Your task to perform on an android device: turn notification dots off Image 0: 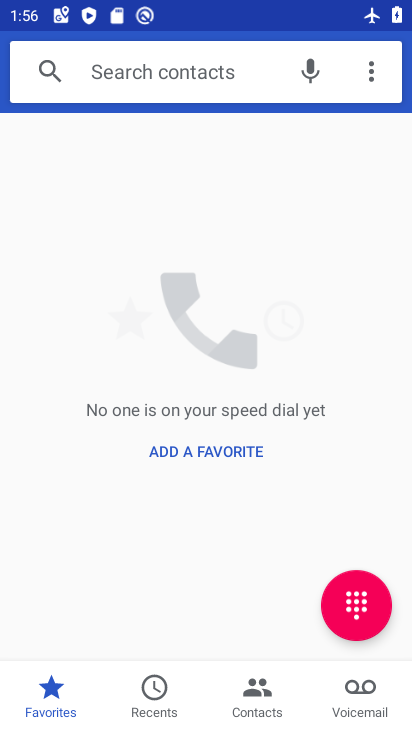
Step 0: press home button
Your task to perform on an android device: turn notification dots off Image 1: 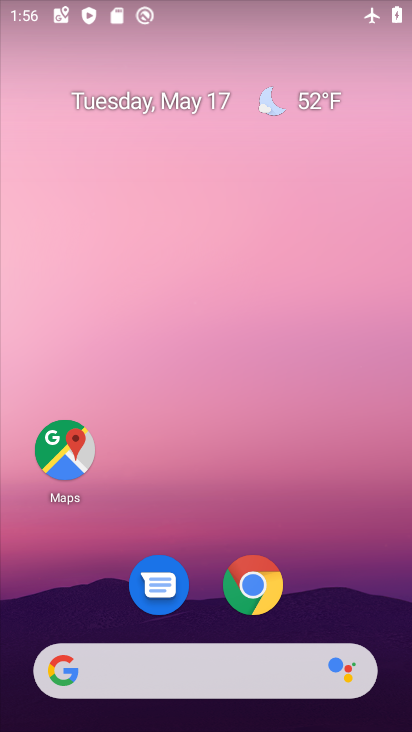
Step 1: drag from (330, 527) to (349, 57)
Your task to perform on an android device: turn notification dots off Image 2: 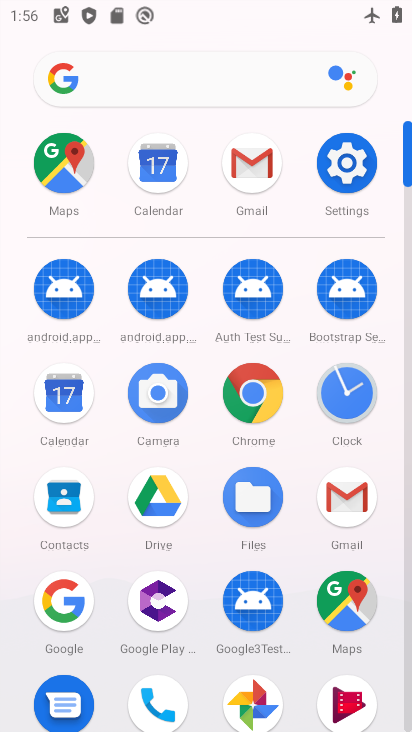
Step 2: click (344, 148)
Your task to perform on an android device: turn notification dots off Image 3: 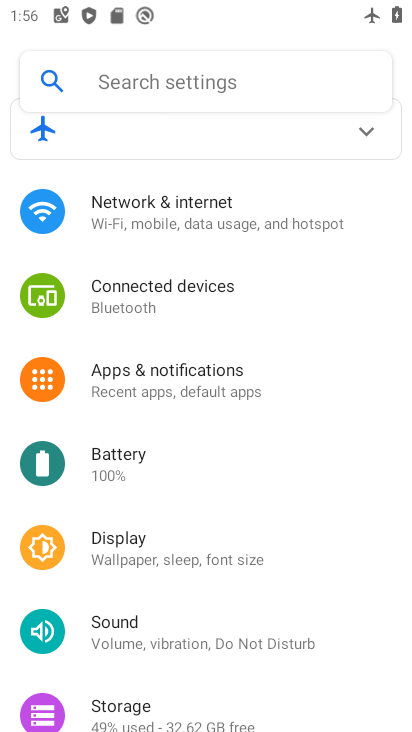
Step 3: click (265, 223)
Your task to perform on an android device: turn notification dots off Image 4: 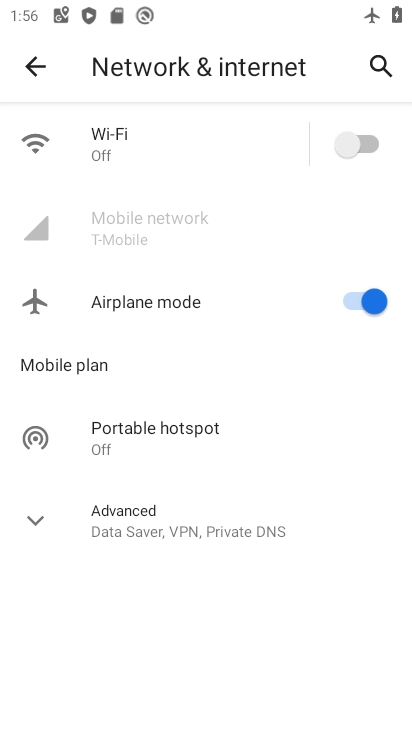
Step 4: click (38, 61)
Your task to perform on an android device: turn notification dots off Image 5: 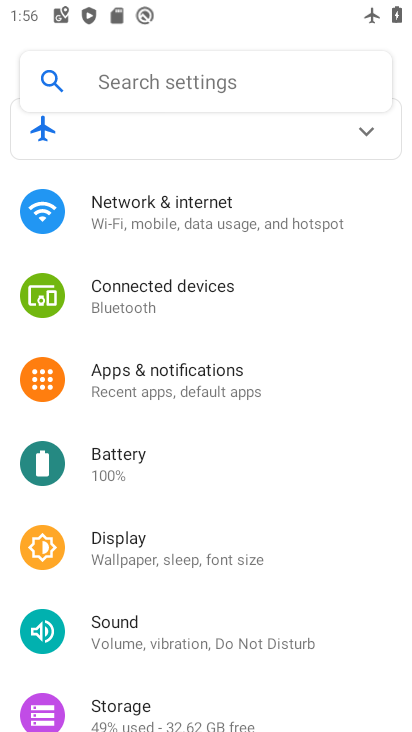
Step 5: click (196, 366)
Your task to perform on an android device: turn notification dots off Image 6: 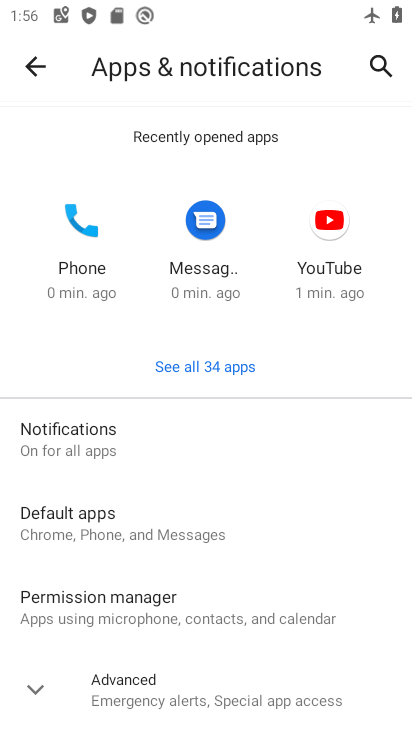
Step 6: click (201, 436)
Your task to perform on an android device: turn notification dots off Image 7: 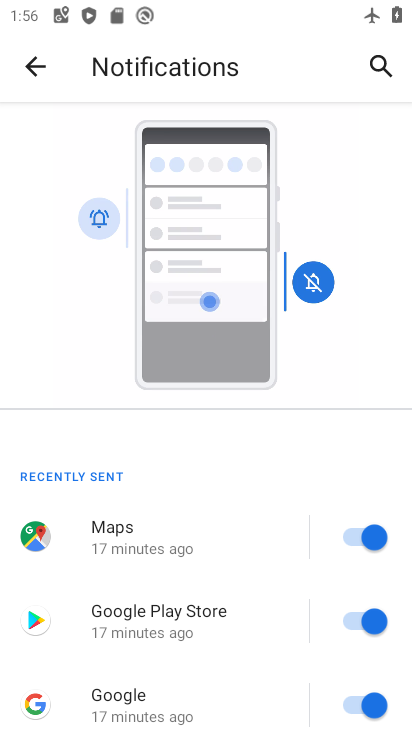
Step 7: drag from (223, 608) to (231, 211)
Your task to perform on an android device: turn notification dots off Image 8: 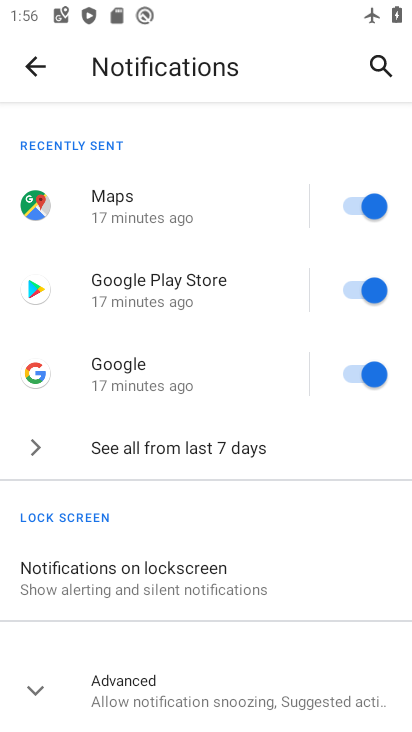
Step 8: click (38, 693)
Your task to perform on an android device: turn notification dots off Image 9: 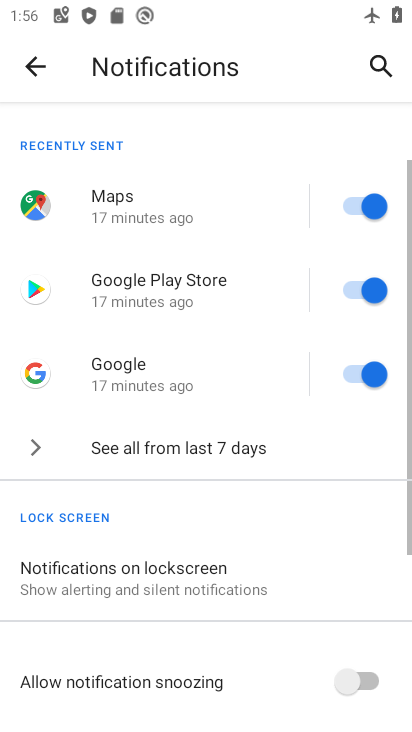
Step 9: drag from (204, 538) to (233, 206)
Your task to perform on an android device: turn notification dots off Image 10: 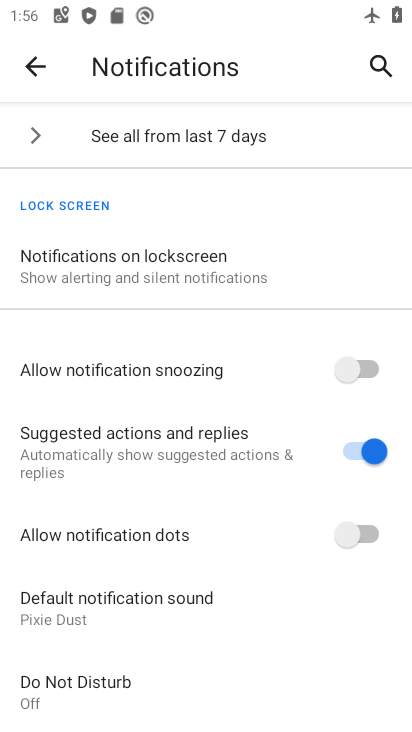
Step 10: click (362, 534)
Your task to perform on an android device: turn notification dots off Image 11: 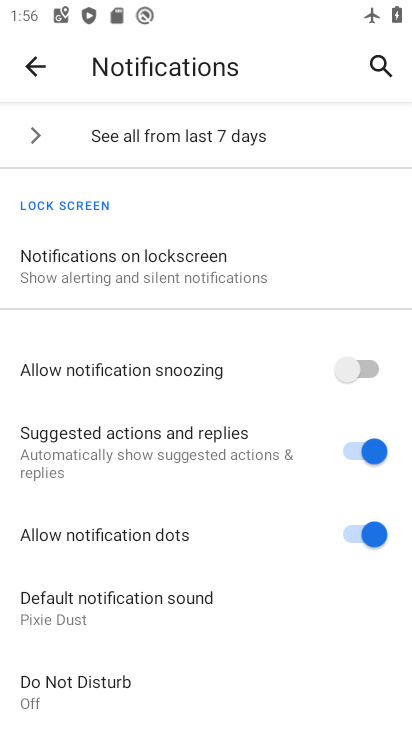
Step 11: click (356, 525)
Your task to perform on an android device: turn notification dots off Image 12: 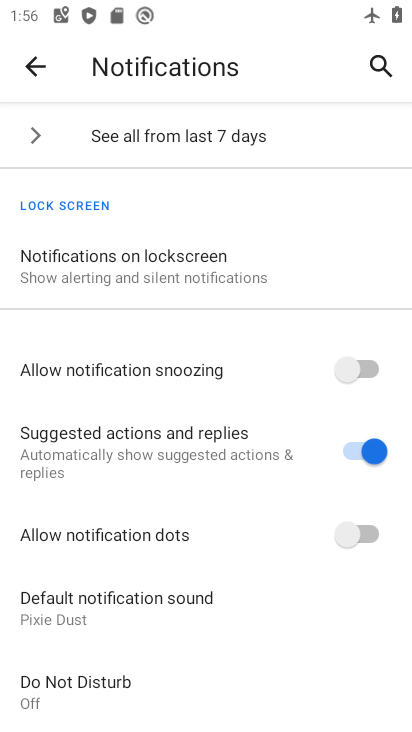
Step 12: task complete